Your task to perform on an android device: Is it going to rain tomorrow? Image 0: 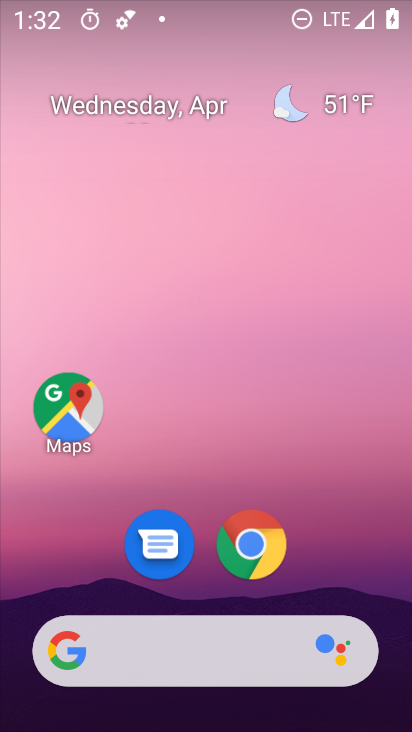
Step 0: click (182, 653)
Your task to perform on an android device: Is it going to rain tomorrow? Image 1: 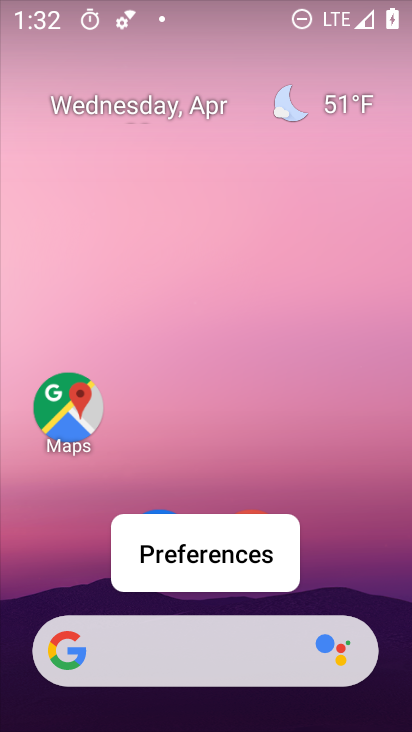
Step 1: click (198, 641)
Your task to perform on an android device: Is it going to rain tomorrow? Image 2: 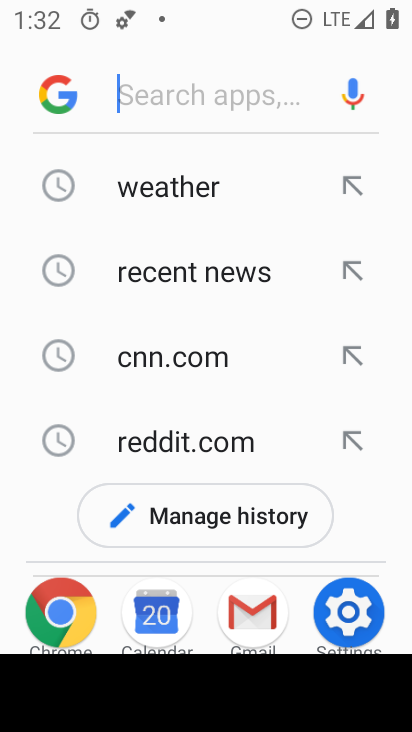
Step 2: click (185, 181)
Your task to perform on an android device: Is it going to rain tomorrow? Image 3: 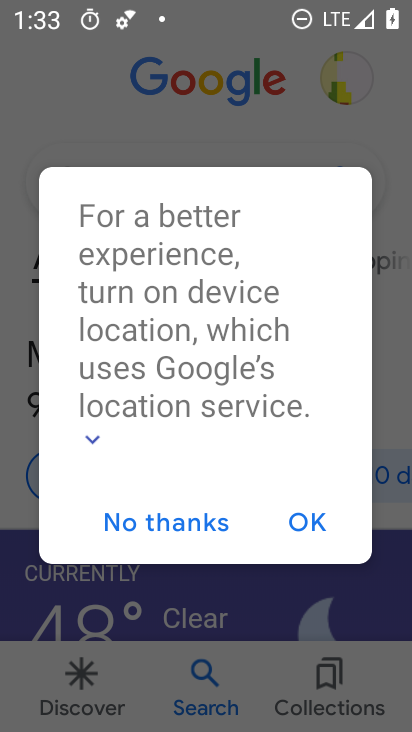
Step 3: click (196, 533)
Your task to perform on an android device: Is it going to rain tomorrow? Image 4: 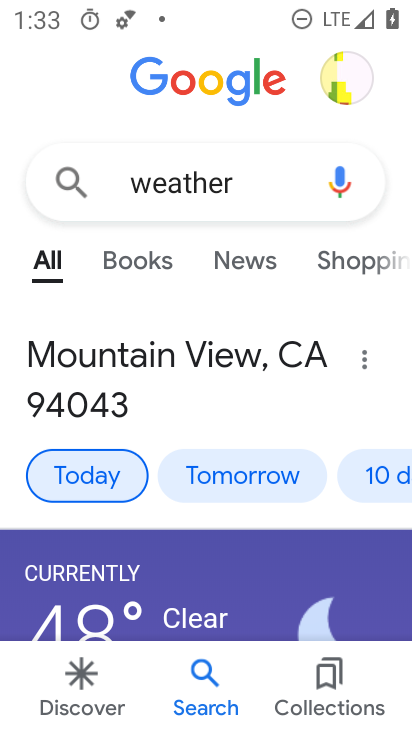
Step 4: click (244, 480)
Your task to perform on an android device: Is it going to rain tomorrow? Image 5: 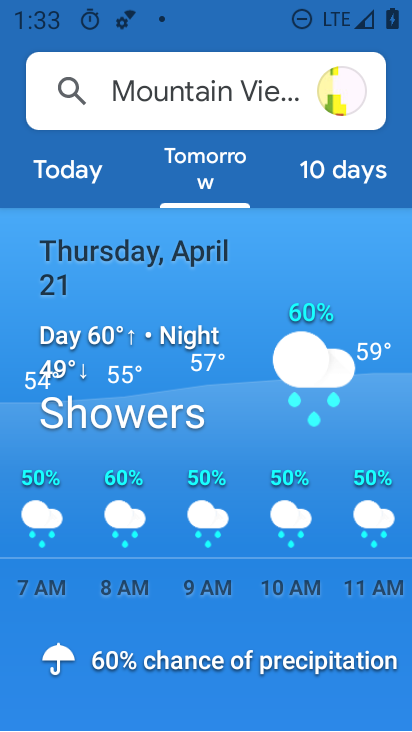
Step 5: task complete